Your task to perform on an android device: What is the recent news? Image 0: 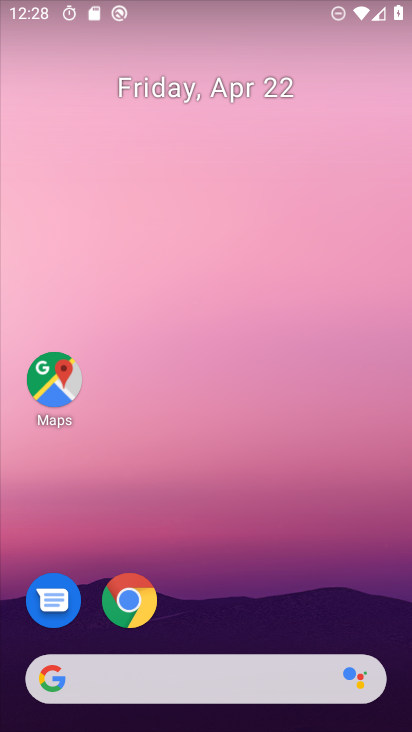
Step 0: drag from (219, 547) to (257, 27)
Your task to perform on an android device: What is the recent news? Image 1: 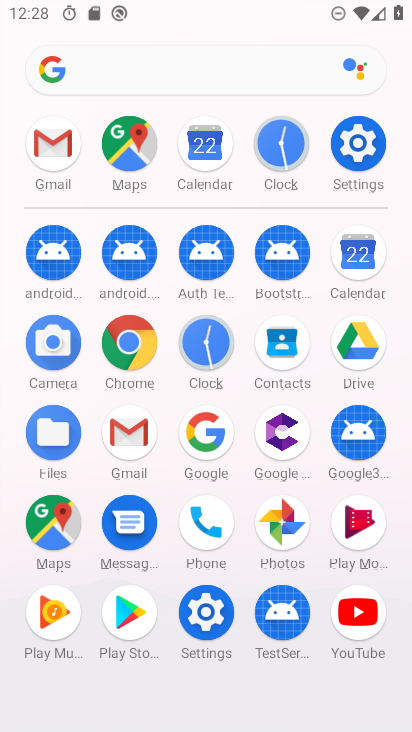
Step 1: click (205, 428)
Your task to perform on an android device: What is the recent news? Image 2: 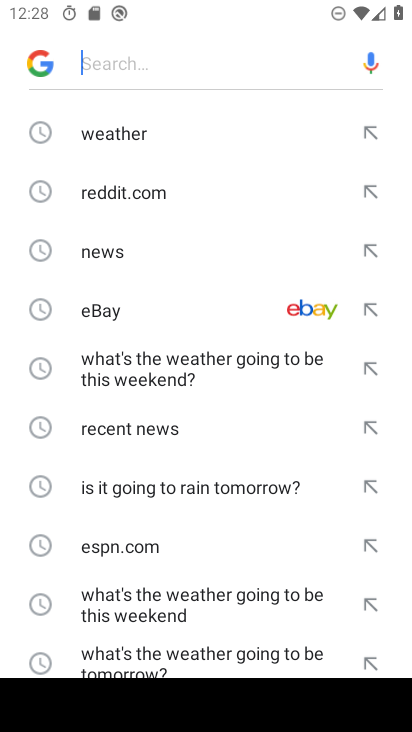
Step 2: click (178, 434)
Your task to perform on an android device: What is the recent news? Image 3: 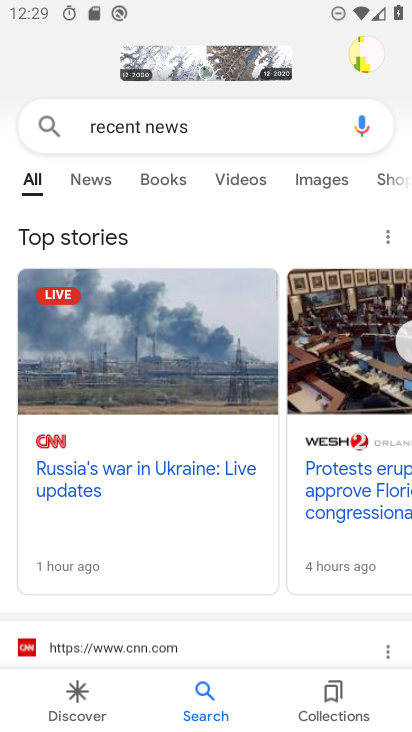
Step 3: task complete